Your task to perform on an android device: Show me the alarms in the clock app Image 0: 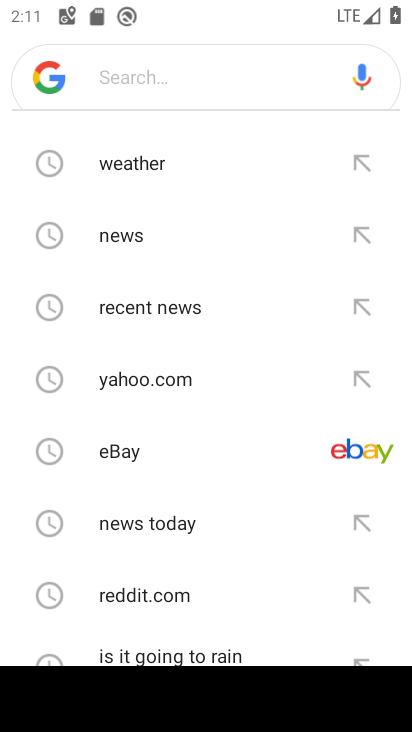
Step 0: press home button
Your task to perform on an android device: Show me the alarms in the clock app Image 1: 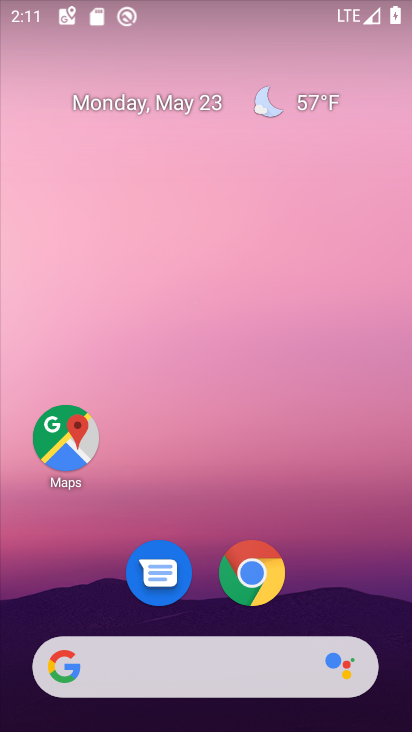
Step 1: drag from (338, 594) to (250, 4)
Your task to perform on an android device: Show me the alarms in the clock app Image 2: 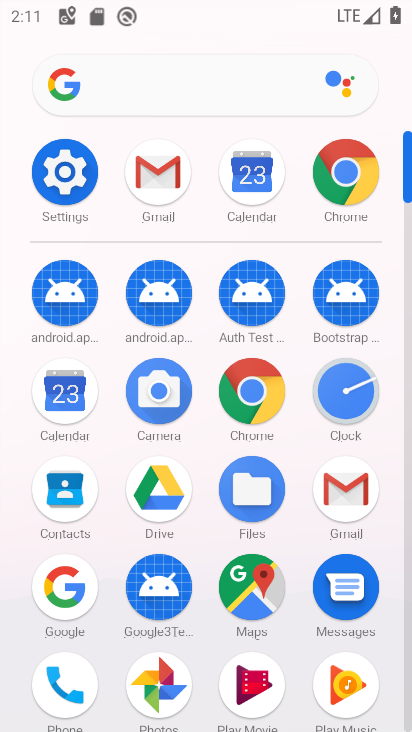
Step 2: click (355, 384)
Your task to perform on an android device: Show me the alarms in the clock app Image 3: 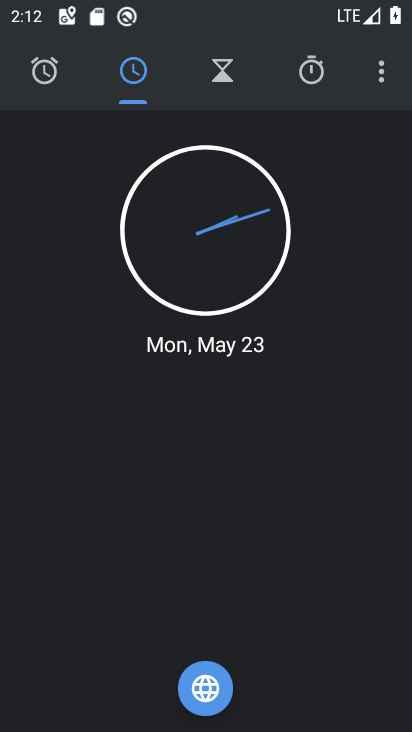
Step 3: click (31, 59)
Your task to perform on an android device: Show me the alarms in the clock app Image 4: 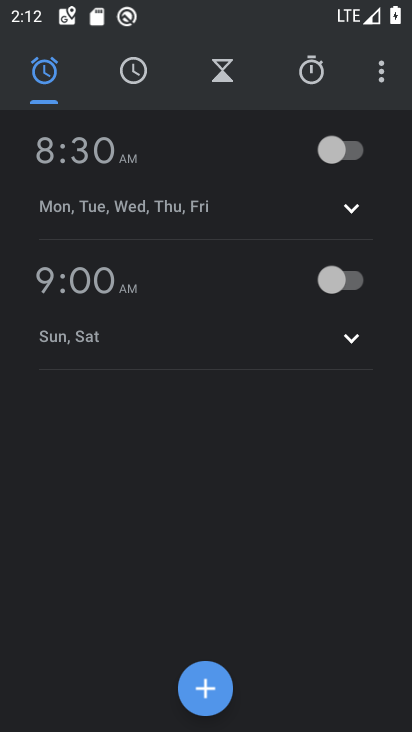
Step 4: task complete